Your task to perform on an android device: Go to Maps Image 0: 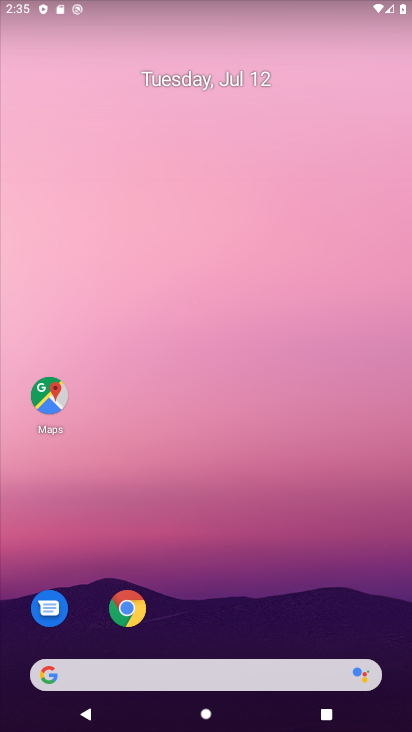
Step 0: click (37, 397)
Your task to perform on an android device: Go to Maps Image 1: 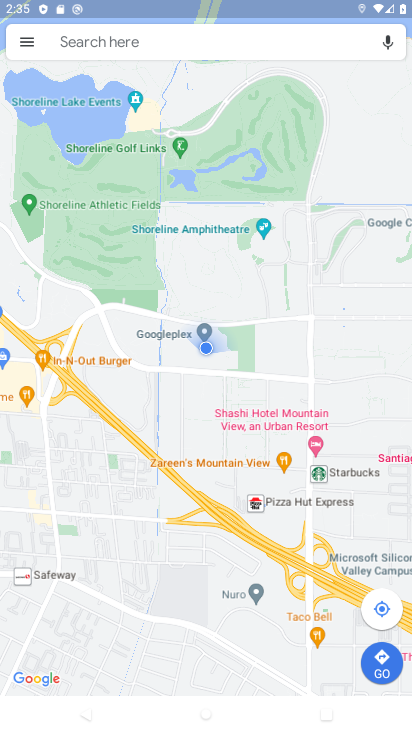
Step 1: task complete